Your task to perform on an android device: check google app version Image 0: 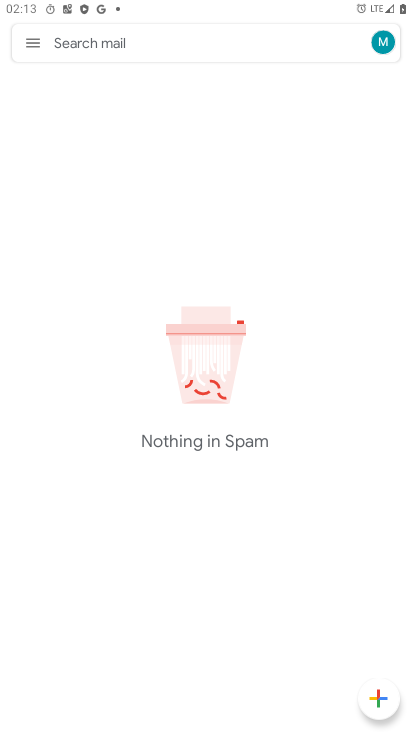
Step 0: press home button
Your task to perform on an android device: check google app version Image 1: 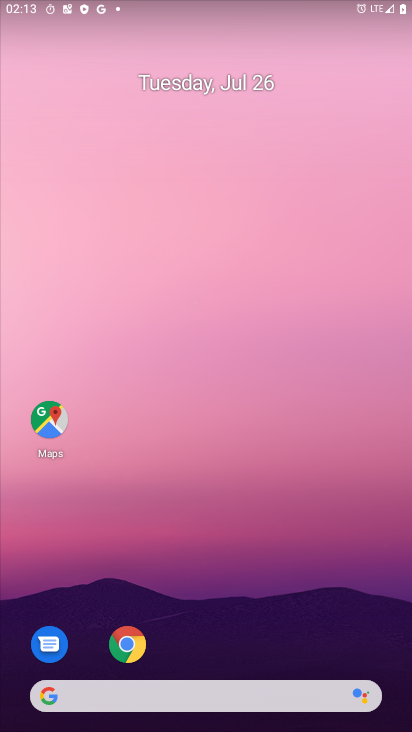
Step 1: drag from (207, 616) to (223, 72)
Your task to perform on an android device: check google app version Image 2: 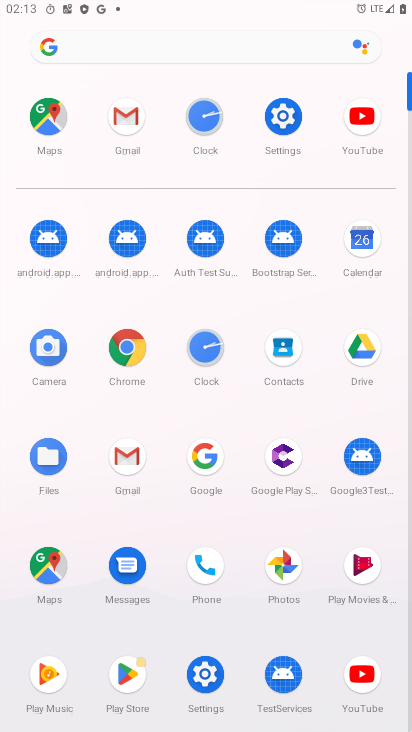
Step 2: click (208, 458)
Your task to perform on an android device: check google app version Image 3: 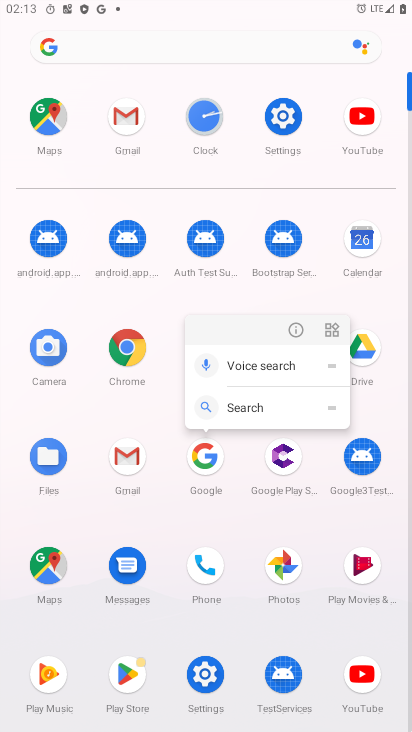
Step 3: click (296, 330)
Your task to perform on an android device: check google app version Image 4: 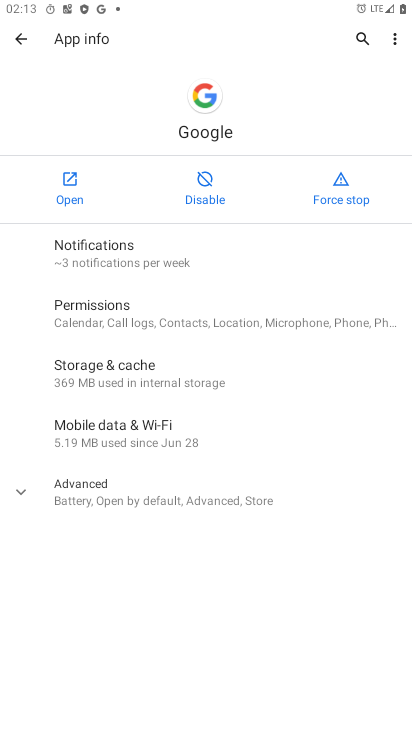
Step 4: click (17, 493)
Your task to perform on an android device: check google app version Image 5: 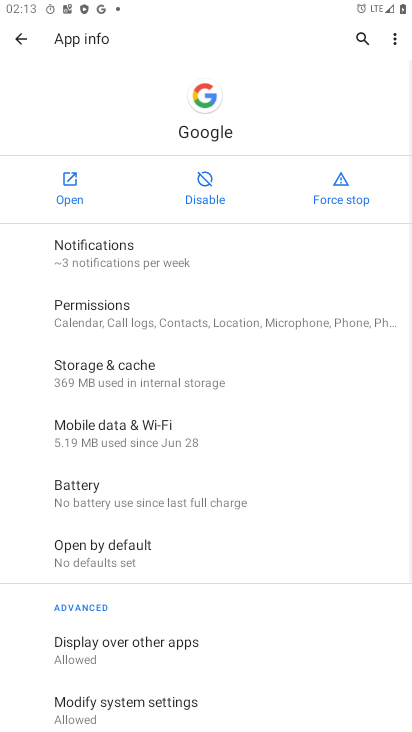
Step 5: task complete